Your task to perform on an android device: See recent photos Image 0: 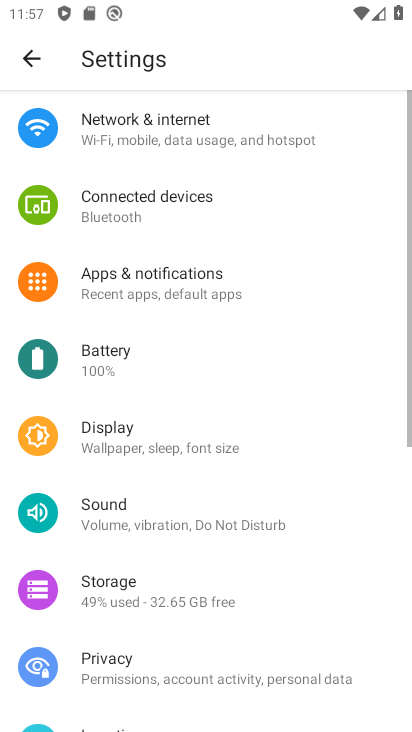
Step 0: press home button
Your task to perform on an android device: See recent photos Image 1: 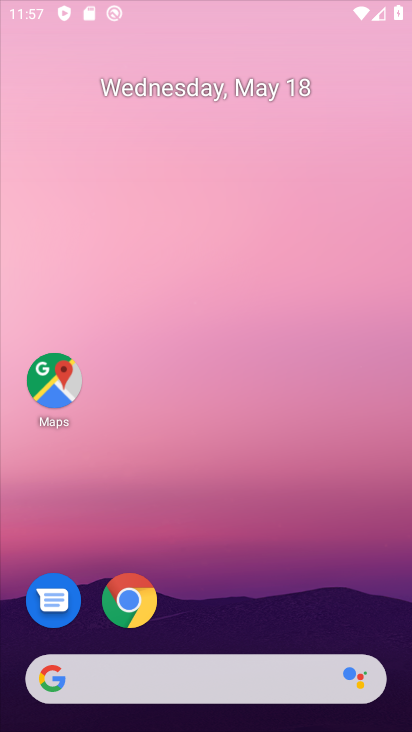
Step 1: drag from (317, 599) to (197, 69)
Your task to perform on an android device: See recent photos Image 2: 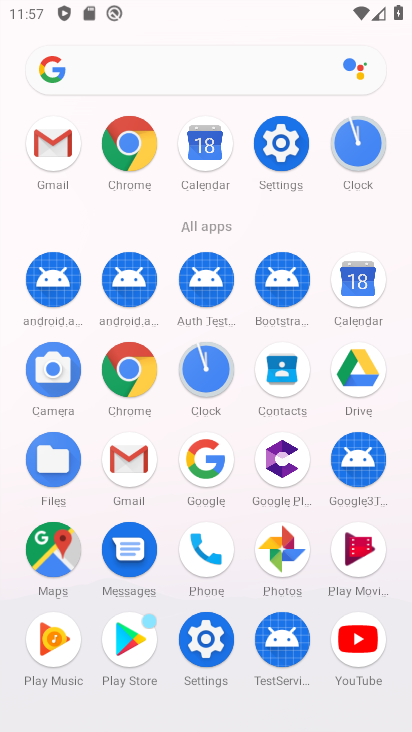
Step 2: click (281, 552)
Your task to perform on an android device: See recent photos Image 3: 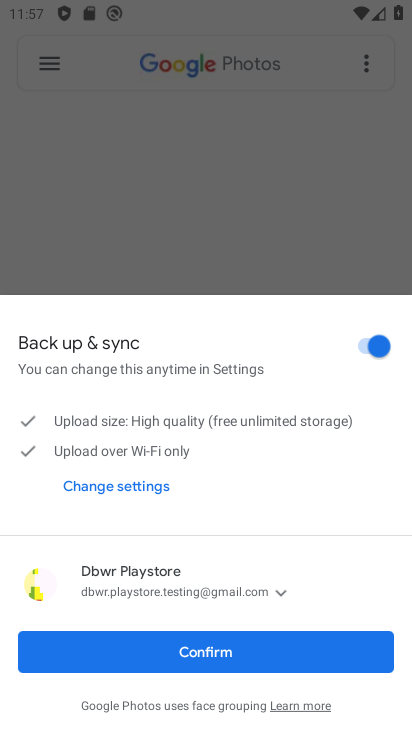
Step 3: click (225, 652)
Your task to perform on an android device: See recent photos Image 4: 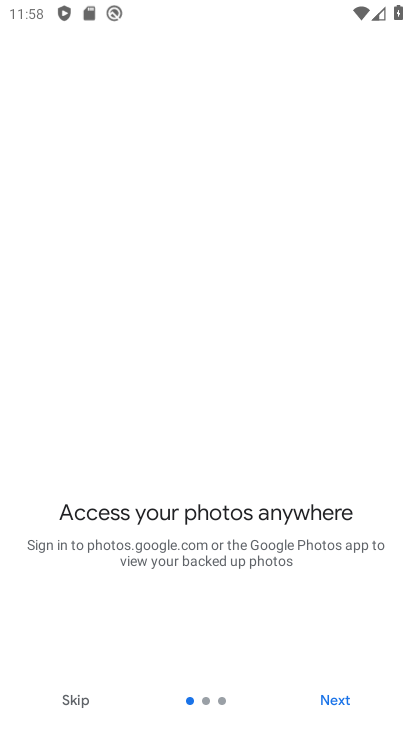
Step 4: click (328, 693)
Your task to perform on an android device: See recent photos Image 5: 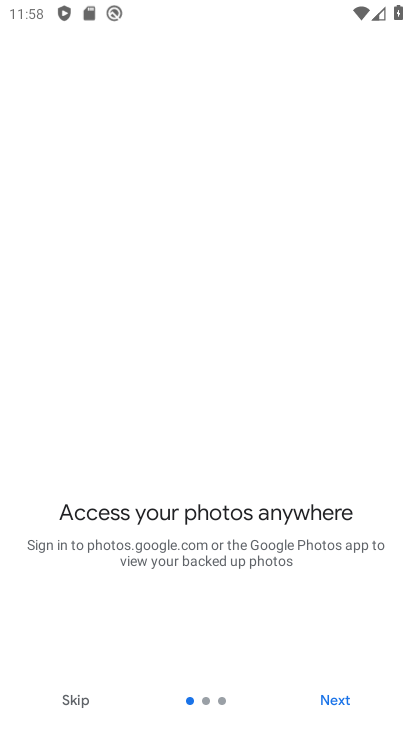
Step 5: click (328, 693)
Your task to perform on an android device: See recent photos Image 6: 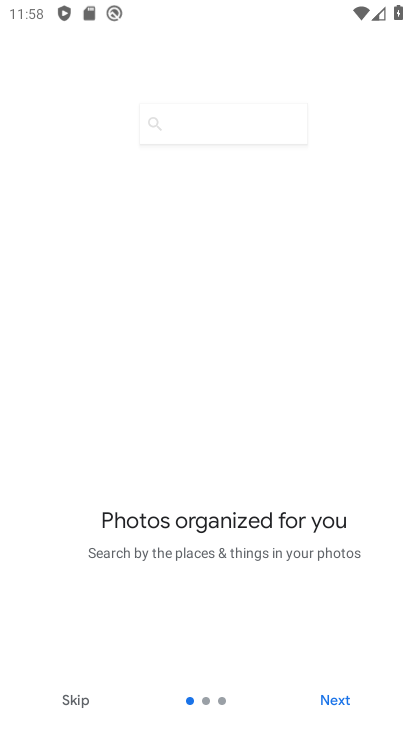
Step 6: click (328, 693)
Your task to perform on an android device: See recent photos Image 7: 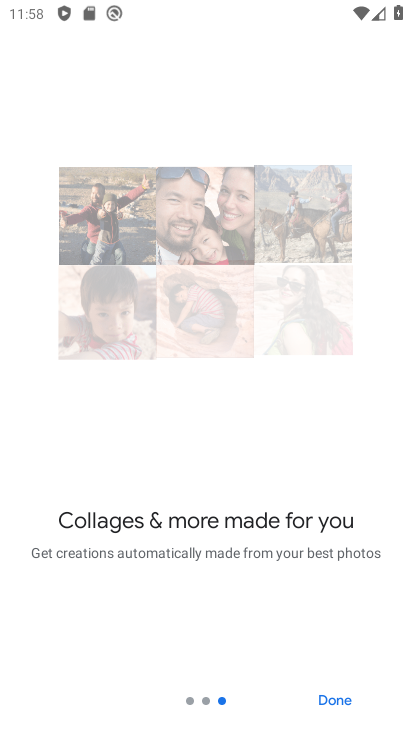
Step 7: click (328, 693)
Your task to perform on an android device: See recent photos Image 8: 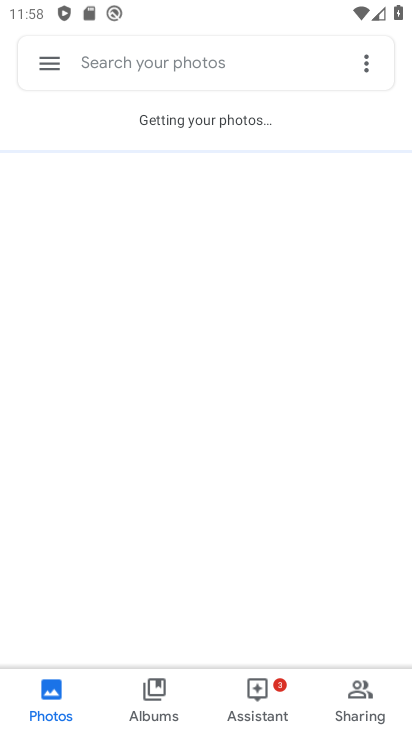
Step 8: click (127, 60)
Your task to perform on an android device: See recent photos Image 9: 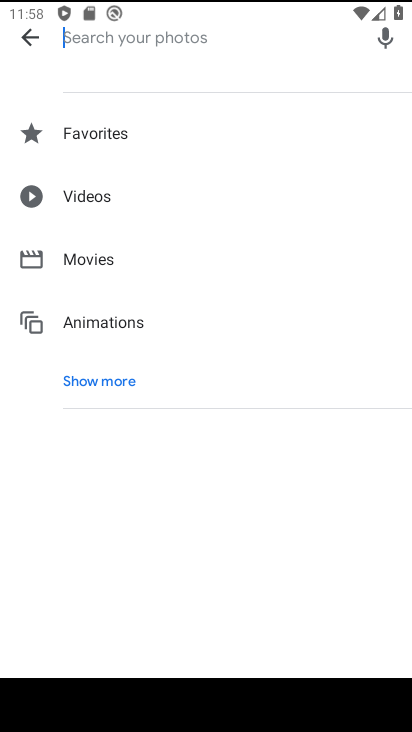
Step 9: type "recent"
Your task to perform on an android device: See recent photos Image 10: 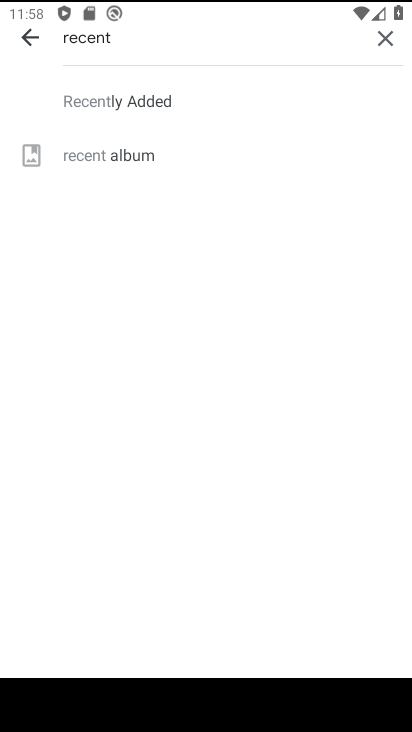
Step 10: click (130, 107)
Your task to perform on an android device: See recent photos Image 11: 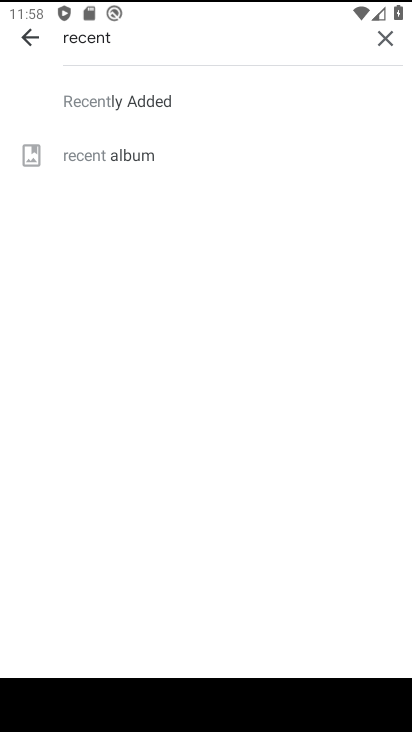
Step 11: click (177, 103)
Your task to perform on an android device: See recent photos Image 12: 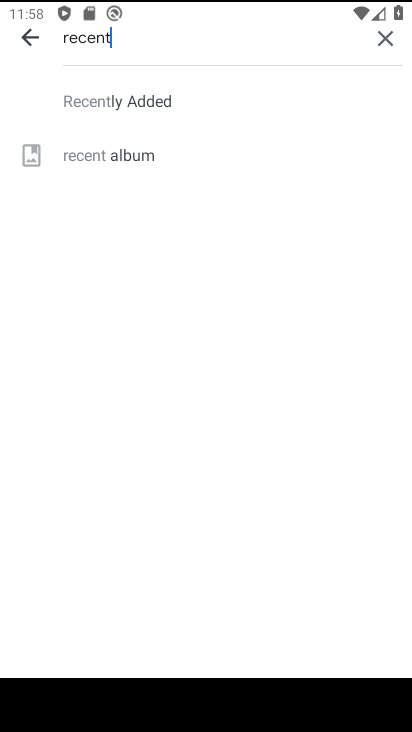
Step 12: click (106, 81)
Your task to perform on an android device: See recent photos Image 13: 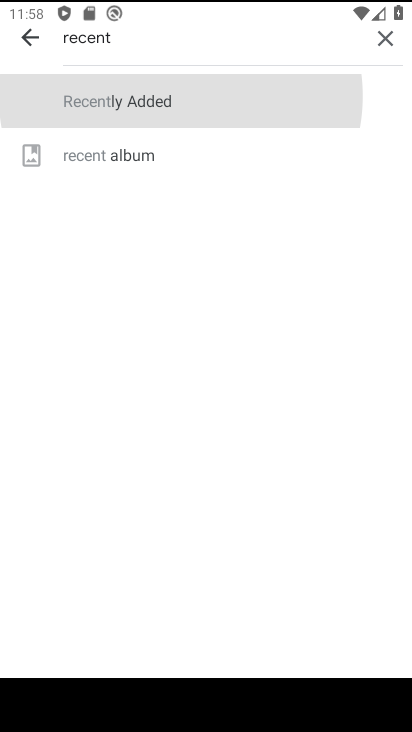
Step 13: click (107, 86)
Your task to perform on an android device: See recent photos Image 14: 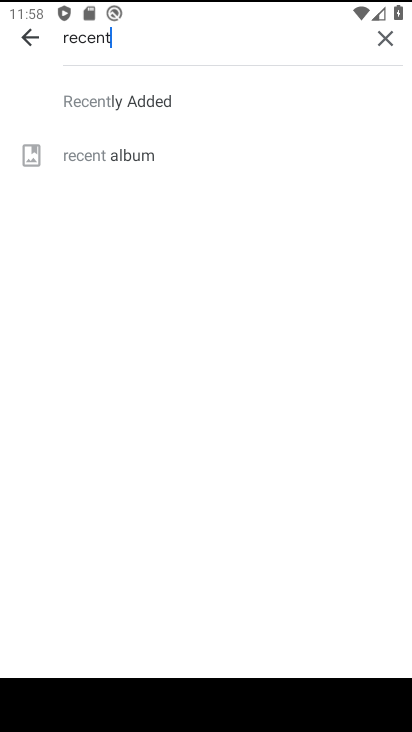
Step 14: click (139, 145)
Your task to perform on an android device: See recent photos Image 15: 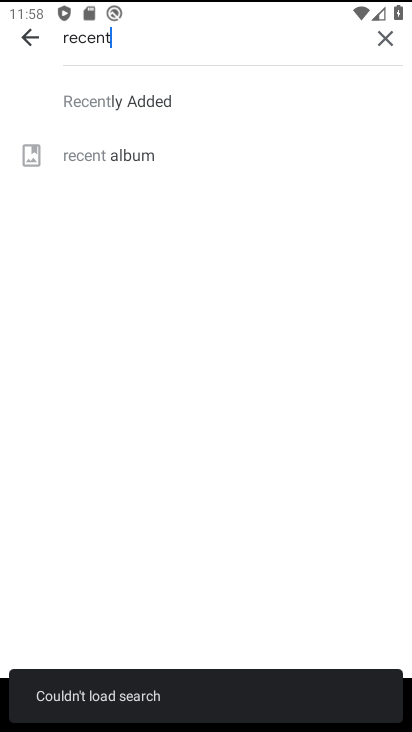
Step 15: click (119, 168)
Your task to perform on an android device: See recent photos Image 16: 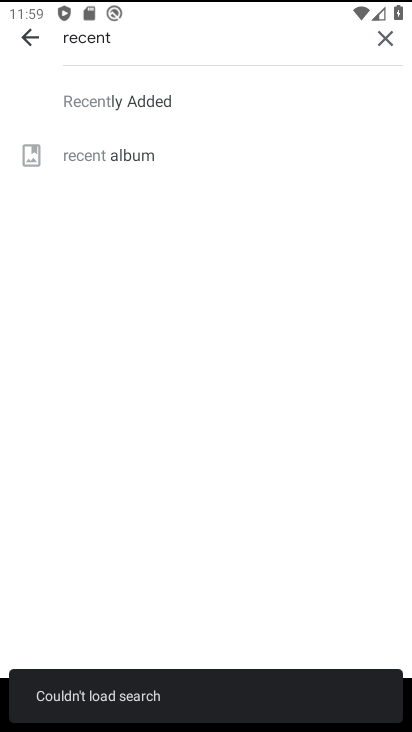
Step 16: task complete